Your task to perform on an android device: toggle notification dots Image 0: 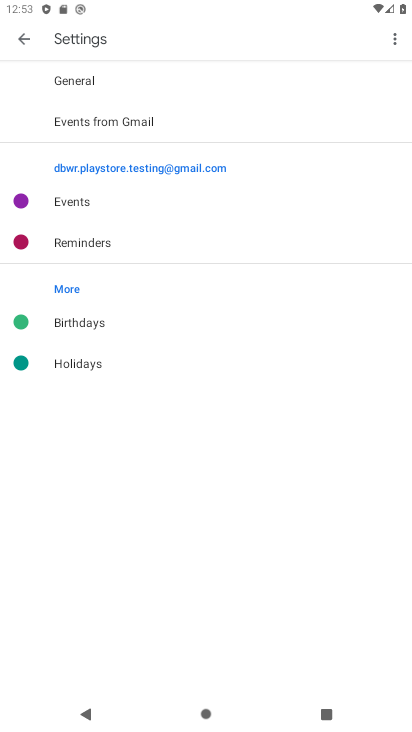
Step 0: press home button
Your task to perform on an android device: toggle notification dots Image 1: 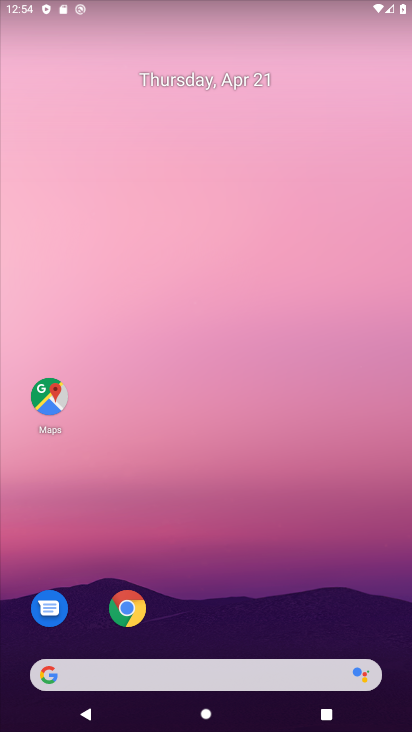
Step 1: drag from (267, 594) to (229, 17)
Your task to perform on an android device: toggle notification dots Image 2: 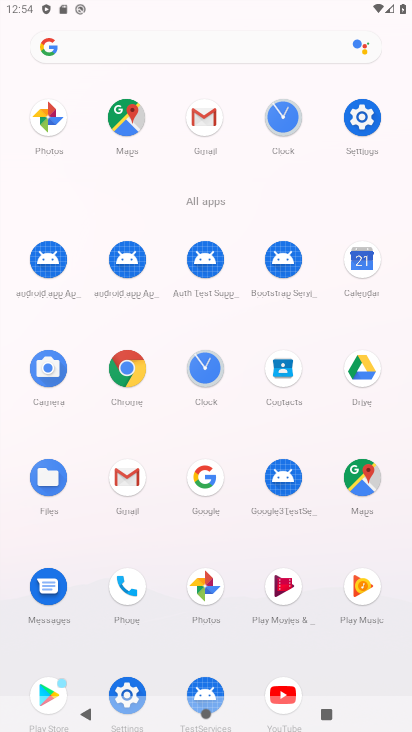
Step 2: click (371, 111)
Your task to perform on an android device: toggle notification dots Image 3: 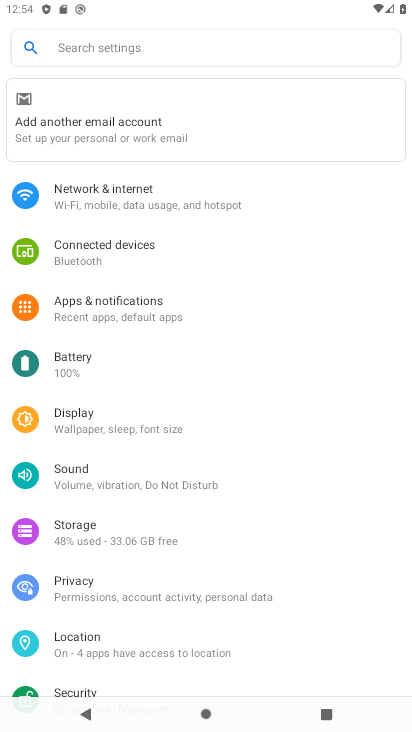
Step 3: click (138, 317)
Your task to perform on an android device: toggle notification dots Image 4: 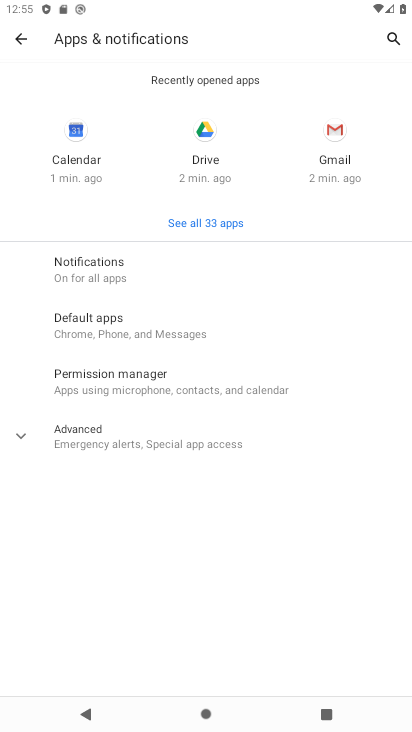
Step 4: click (163, 440)
Your task to perform on an android device: toggle notification dots Image 5: 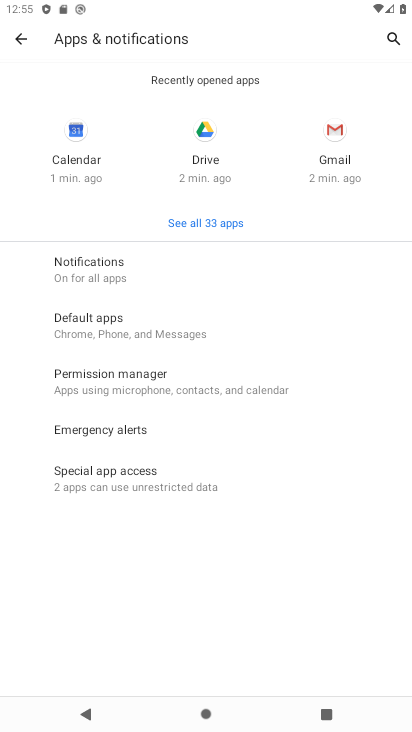
Step 5: click (128, 275)
Your task to perform on an android device: toggle notification dots Image 6: 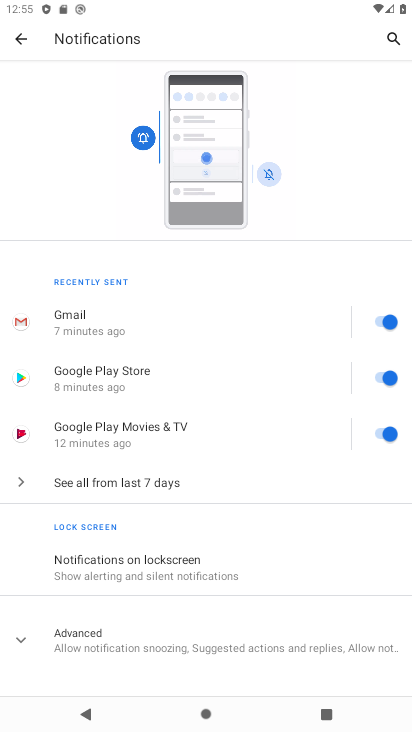
Step 6: click (207, 636)
Your task to perform on an android device: toggle notification dots Image 7: 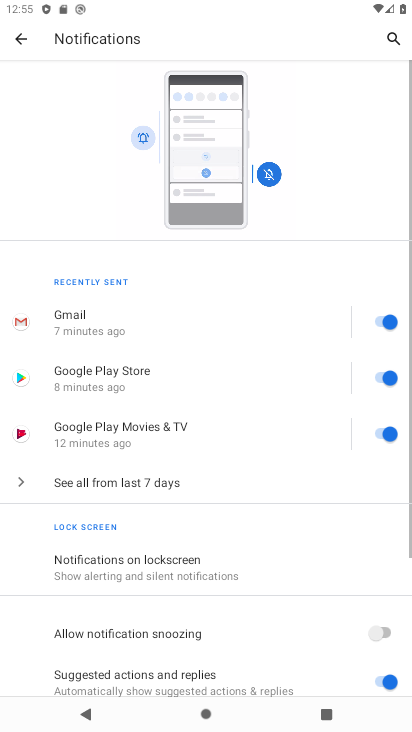
Step 7: drag from (209, 498) to (226, 323)
Your task to perform on an android device: toggle notification dots Image 8: 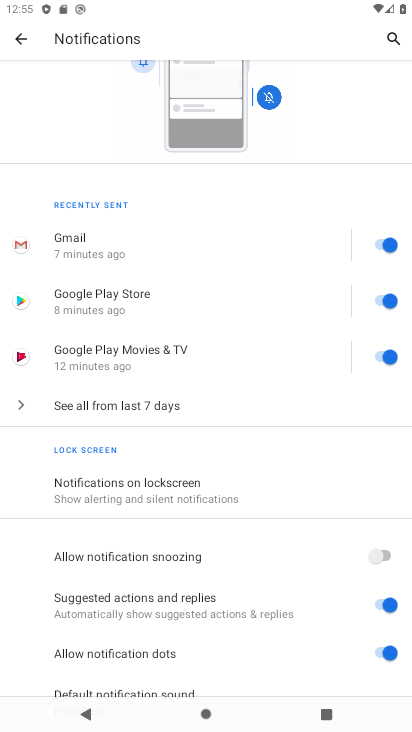
Step 8: click (377, 651)
Your task to perform on an android device: toggle notification dots Image 9: 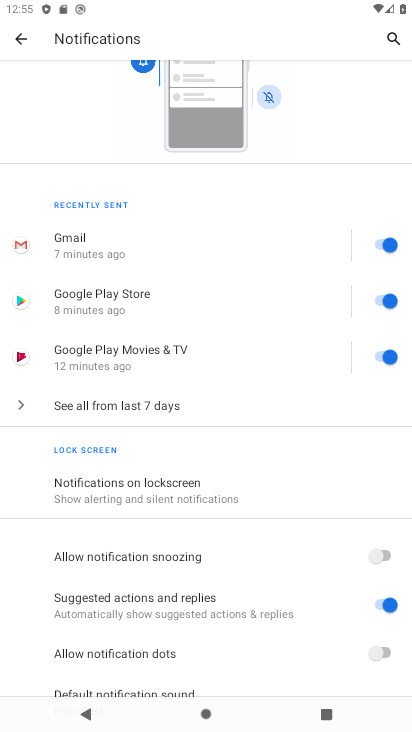
Step 9: task complete